Your task to perform on an android device: When is my next meeting? Image 0: 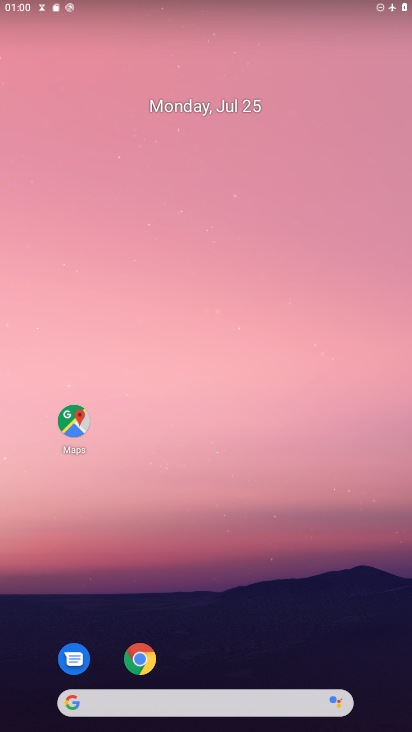
Step 0: drag from (271, 691) to (233, 89)
Your task to perform on an android device: When is my next meeting? Image 1: 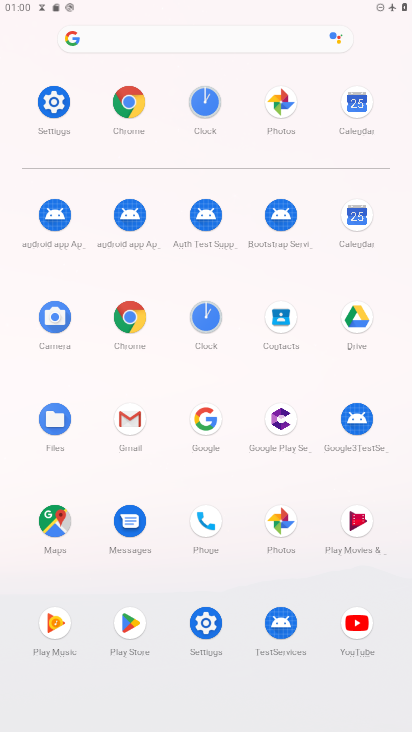
Step 1: click (361, 208)
Your task to perform on an android device: When is my next meeting? Image 2: 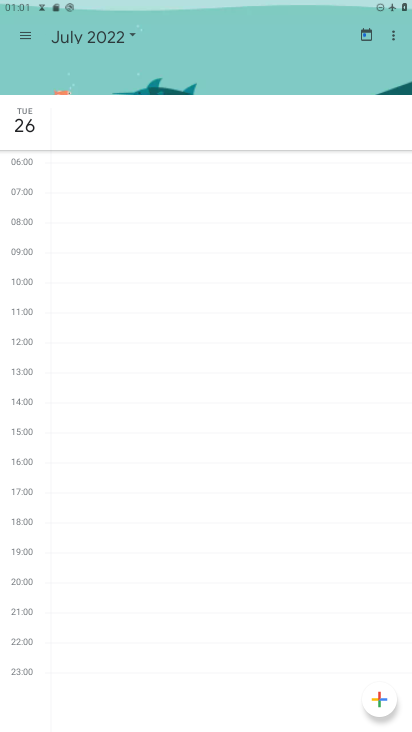
Step 2: task complete